Your task to perform on an android device: Open location settings Image 0: 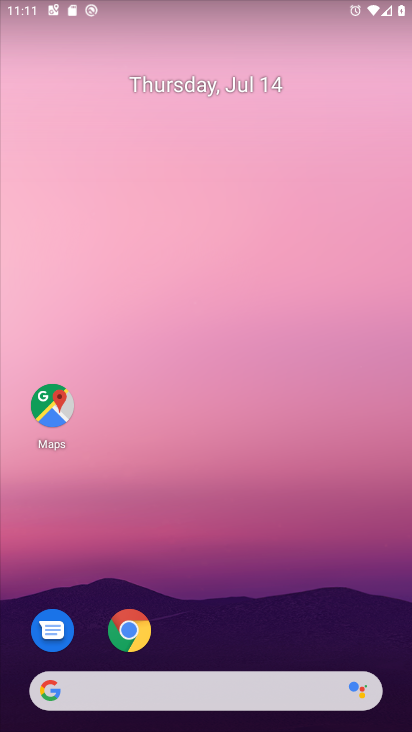
Step 0: drag from (196, 631) to (203, 55)
Your task to perform on an android device: Open location settings Image 1: 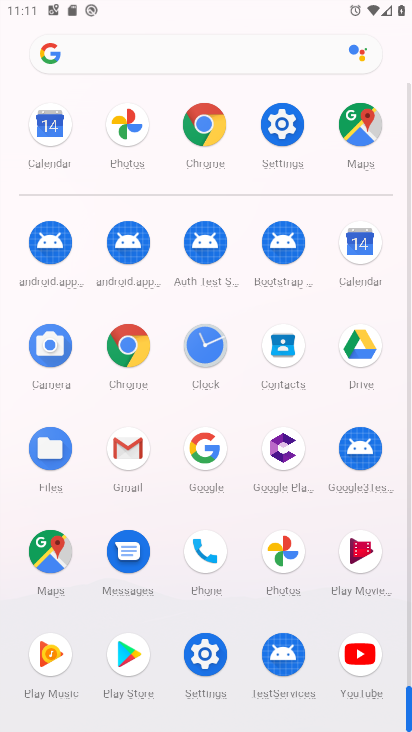
Step 1: click (269, 140)
Your task to perform on an android device: Open location settings Image 2: 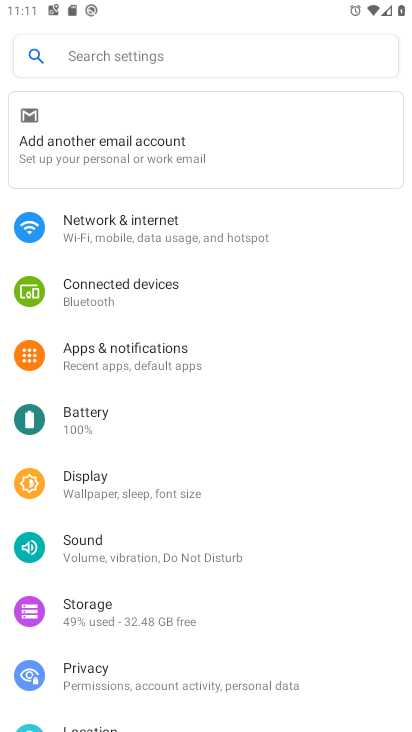
Step 2: drag from (190, 653) to (290, 206)
Your task to perform on an android device: Open location settings Image 3: 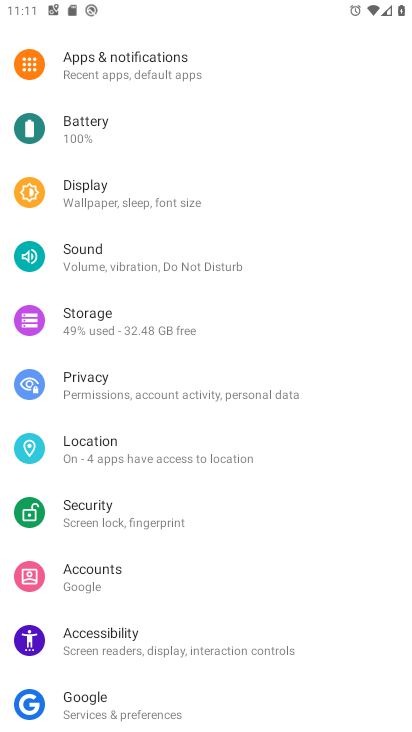
Step 3: click (114, 438)
Your task to perform on an android device: Open location settings Image 4: 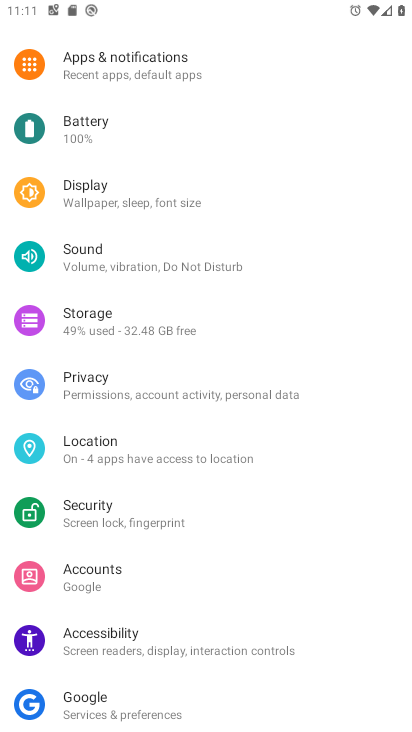
Step 4: click (114, 438)
Your task to perform on an android device: Open location settings Image 5: 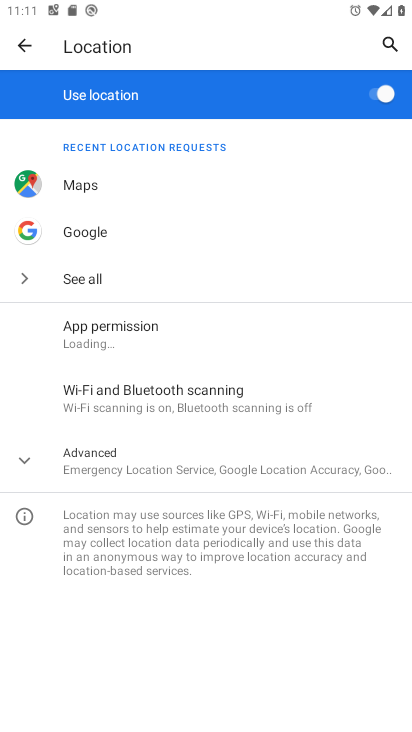
Step 5: task complete